Your task to perform on an android device: turn off sleep mode Image 0: 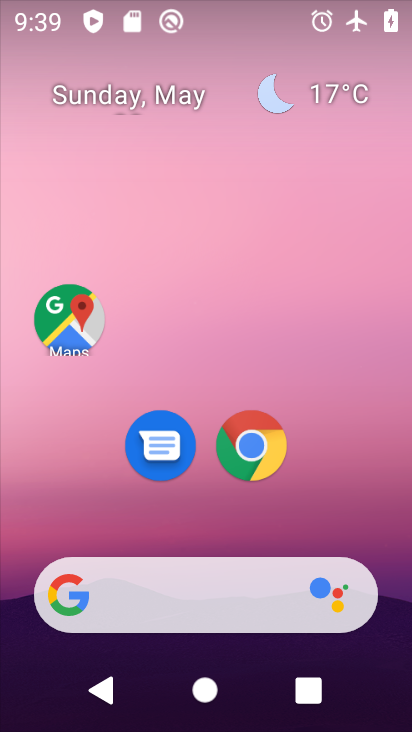
Step 0: drag from (195, 490) to (217, 139)
Your task to perform on an android device: turn off sleep mode Image 1: 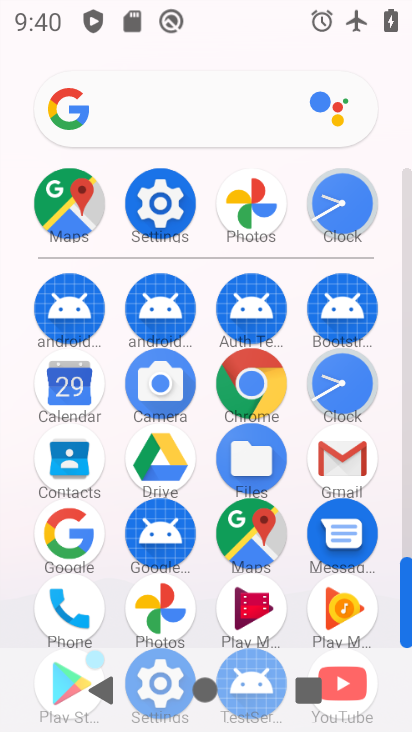
Step 1: click (162, 192)
Your task to perform on an android device: turn off sleep mode Image 2: 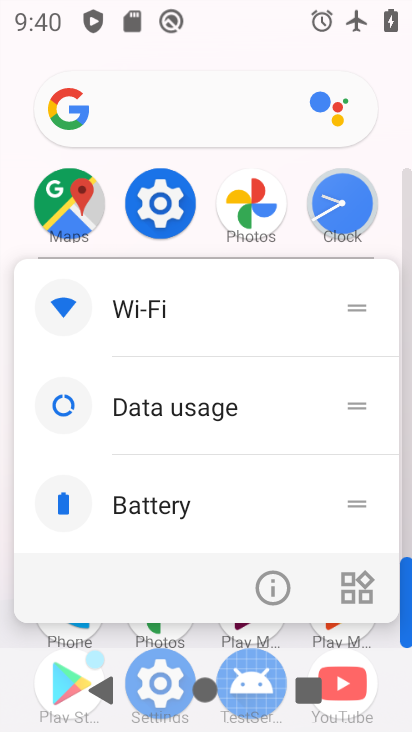
Step 2: click (280, 572)
Your task to perform on an android device: turn off sleep mode Image 3: 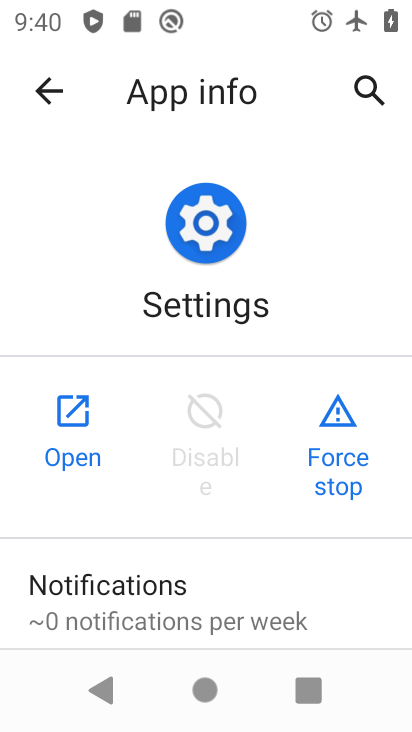
Step 3: click (49, 452)
Your task to perform on an android device: turn off sleep mode Image 4: 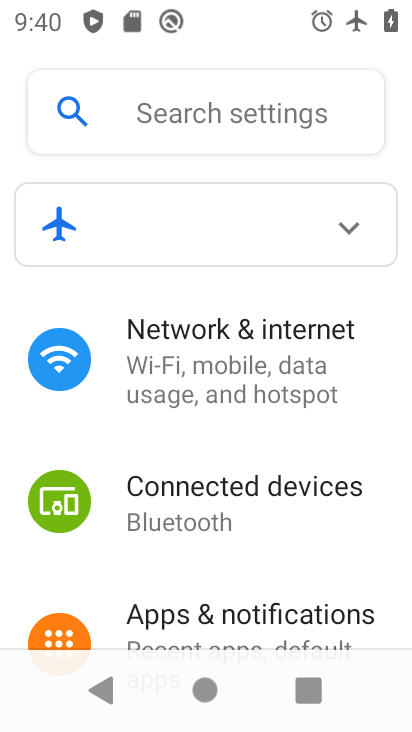
Step 4: drag from (230, 534) to (333, 253)
Your task to perform on an android device: turn off sleep mode Image 5: 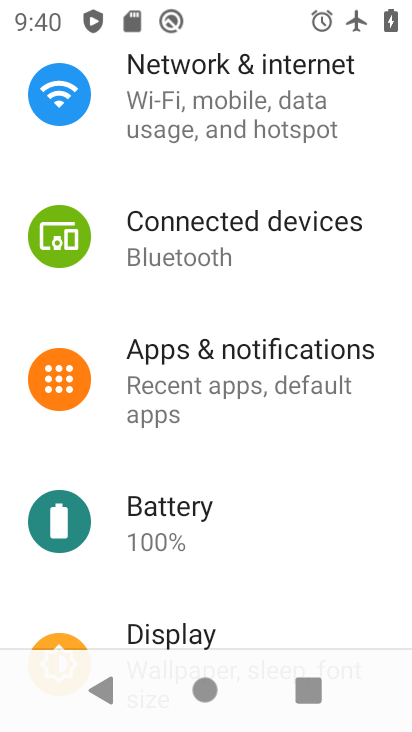
Step 5: drag from (298, 243) to (266, 536)
Your task to perform on an android device: turn off sleep mode Image 6: 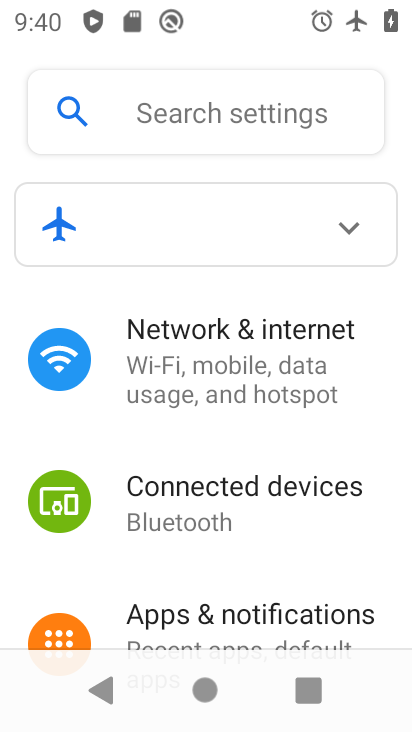
Step 6: drag from (199, 565) to (306, 183)
Your task to perform on an android device: turn off sleep mode Image 7: 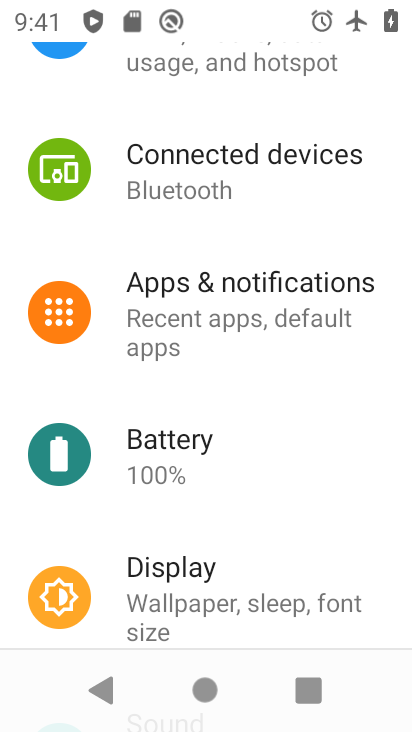
Step 7: drag from (232, 518) to (294, 224)
Your task to perform on an android device: turn off sleep mode Image 8: 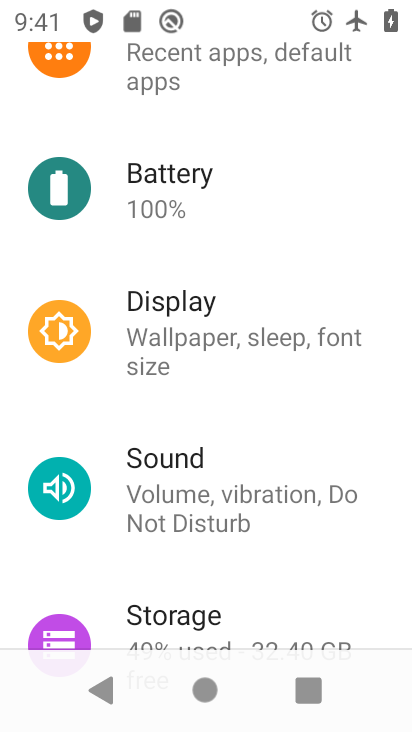
Step 8: click (204, 319)
Your task to perform on an android device: turn off sleep mode Image 9: 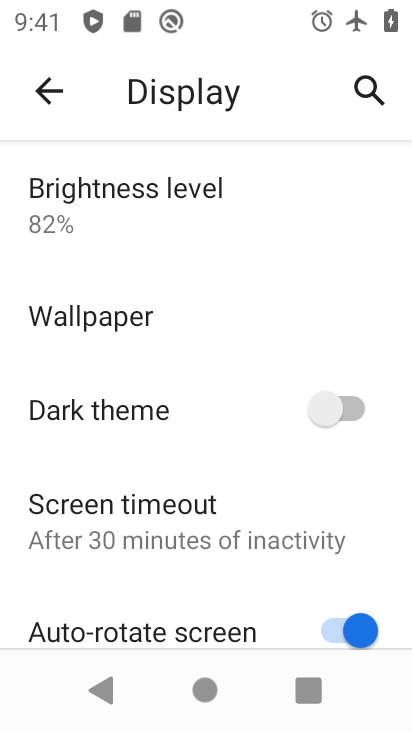
Step 9: click (191, 504)
Your task to perform on an android device: turn off sleep mode Image 10: 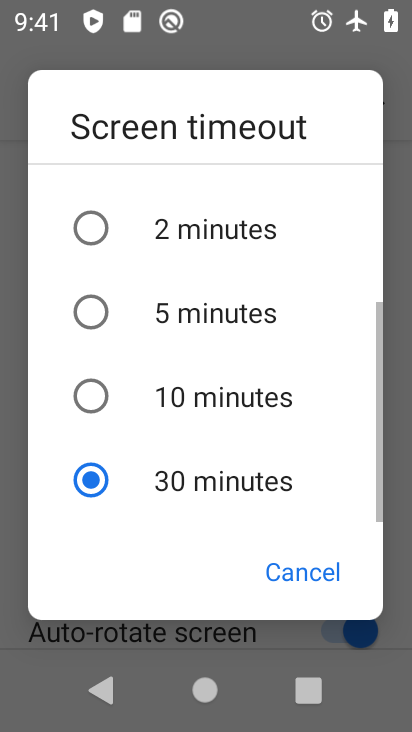
Step 10: task complete